Your task to perform on an android device: toggle notification dots Image 0: 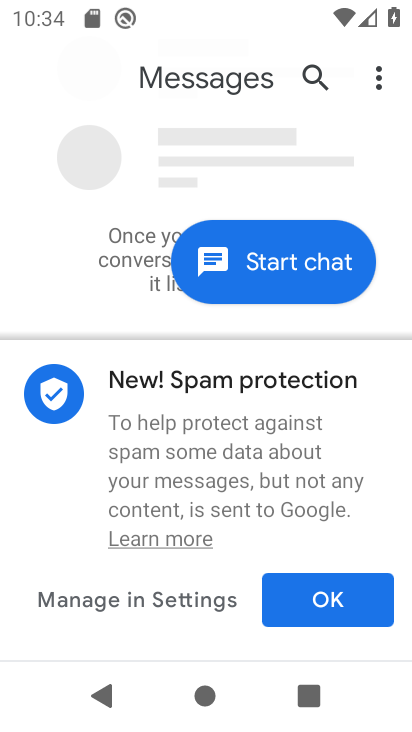
Step 0: press home button
Your task to perform on an android device: toggle notification dots Image 1: 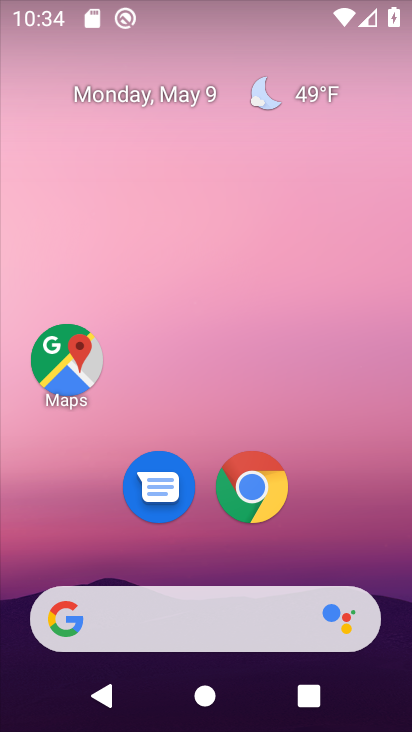
Step 1: drag from (338, 523) to (166, 114)
Your task to perform on an android device: toggle notification dots Image 2: 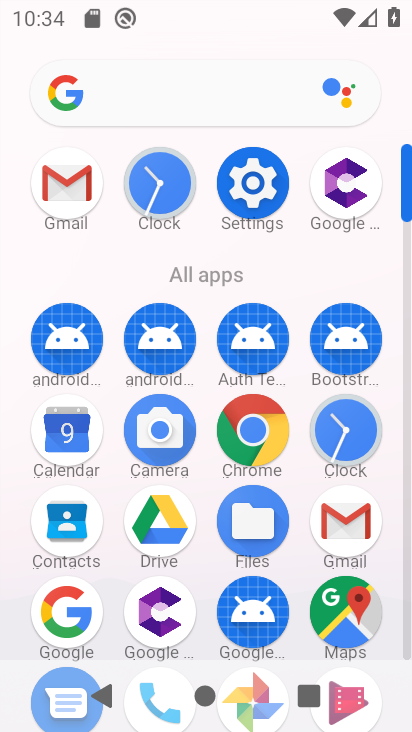
Step 2: click (234, 185)
Your task to perform on an android device: toggle notification dots Image 3: 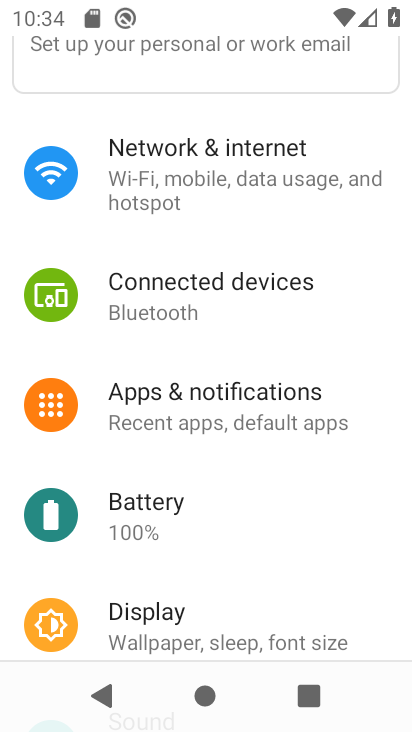
Step 3: click (193, 431)
Your task to perform on an android device: toggle notification dots Image 4: 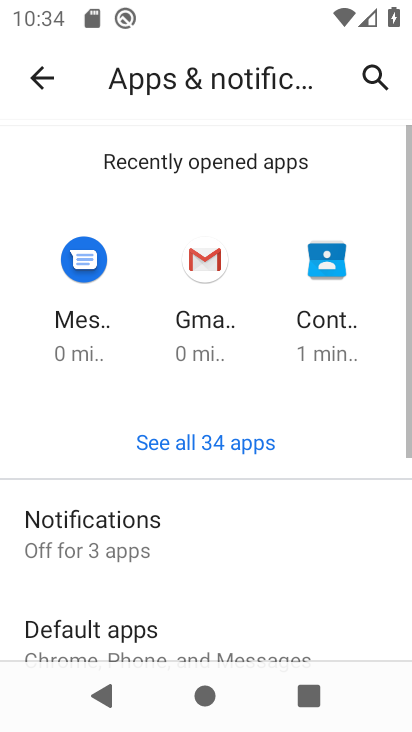
Step 4: click (101, 542)
Your task to perform on an android device: toggle notification dots Image 5: 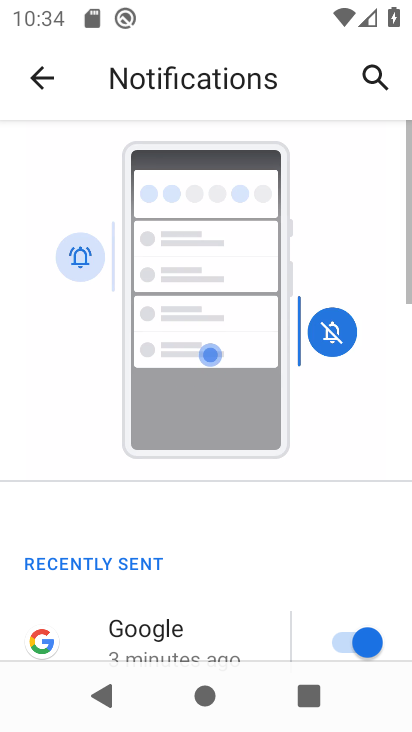
Step 5: drag from (223, 595) to (183, 213)
Your task to perform on an android device: toggle notification dots Image 6: 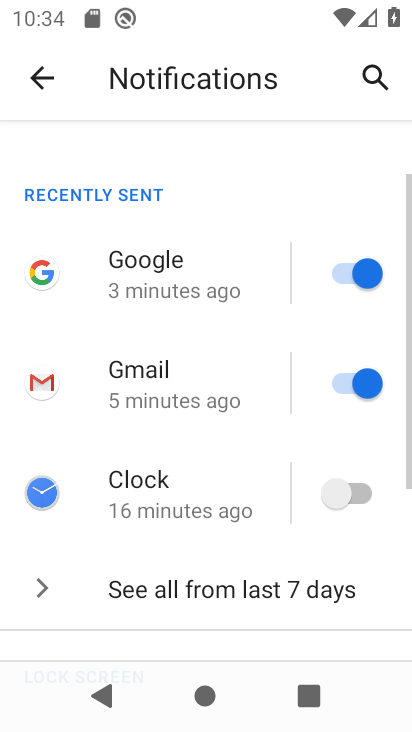
Step 6: drag from (166, 560) to (149, 269)
Your task to perform on an android device: toggle notification dots Image 7: 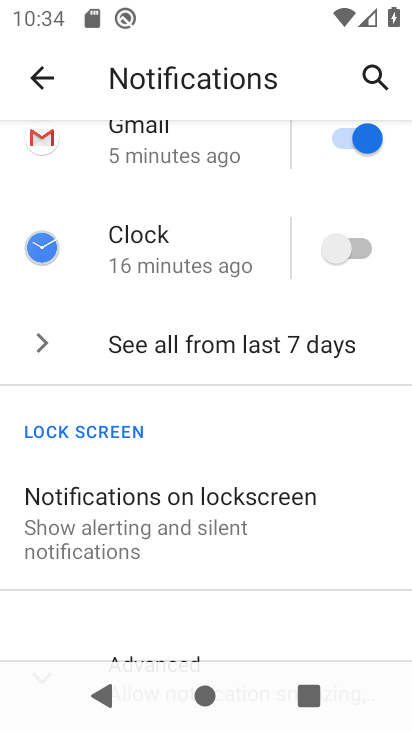
Step 7: drag from (138, 595) to (113, 313)
Your task to perform on an android device: toggle notification dots Image 8: 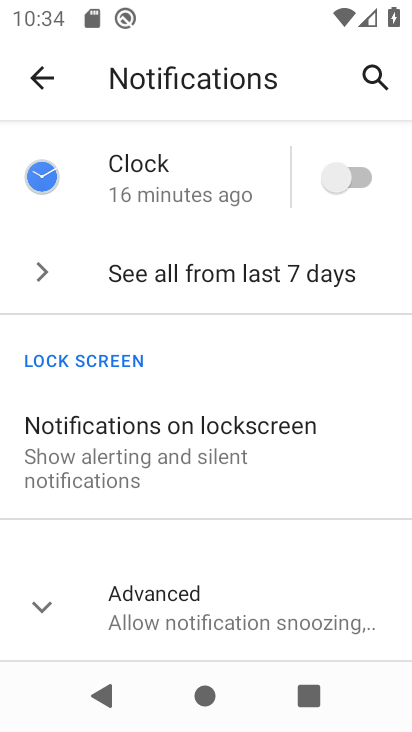
Step 8: click (108, 610)
Your task to perform on an android device: toggle notification dots Image 9: 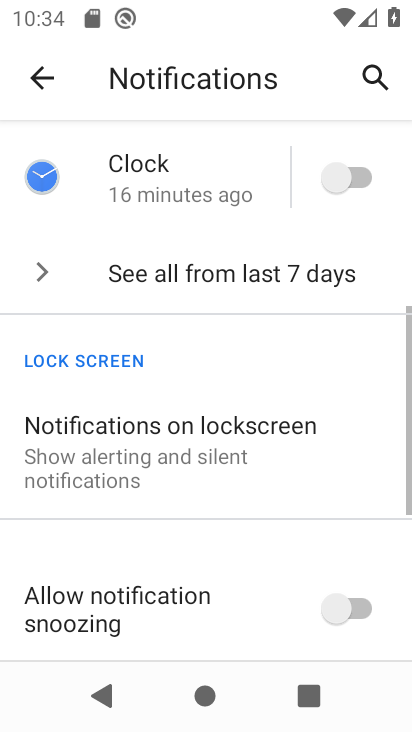
Step 9: drag from (108, 610) to (96, 322)
Your task to perform on an android device: toggle notification dots Image 10: 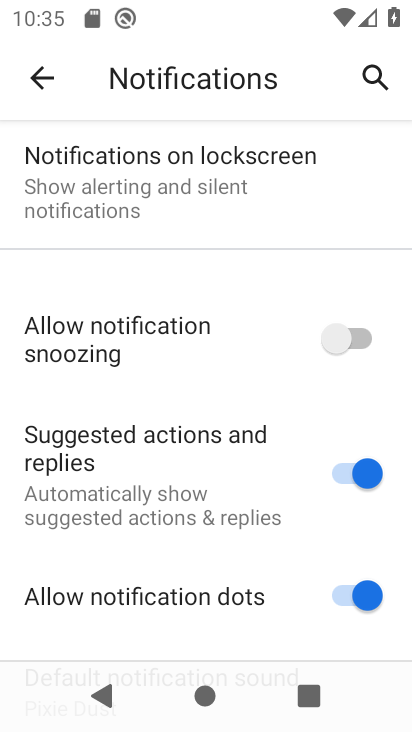
Step 10: click (387, 595)
Your task to perform on an android device: toggle notification dots Image 11: 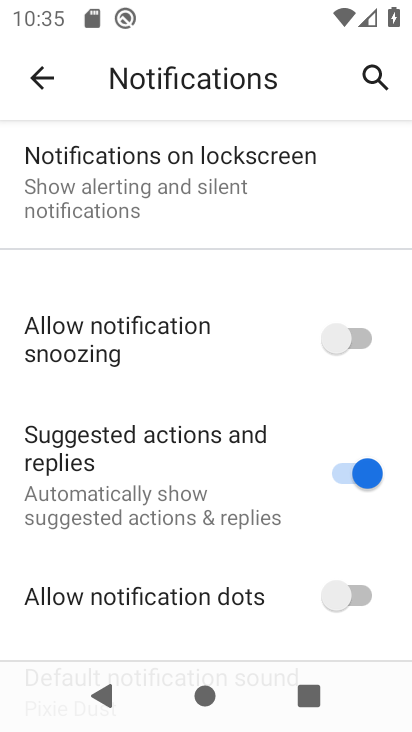
Step 11: task complete